Your task to perform on an android device: snooze an email in the gmail app Image 0: 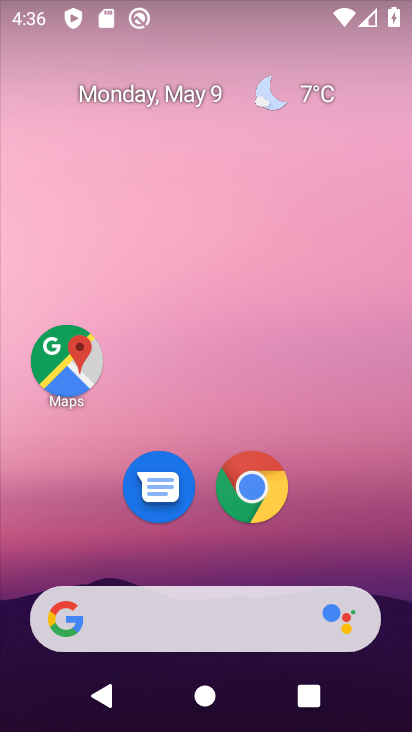
Step 0: drag from (213, 465) to (250, 53)
Your task to perform on an android device: snooze an email in the gmail app Image 1: 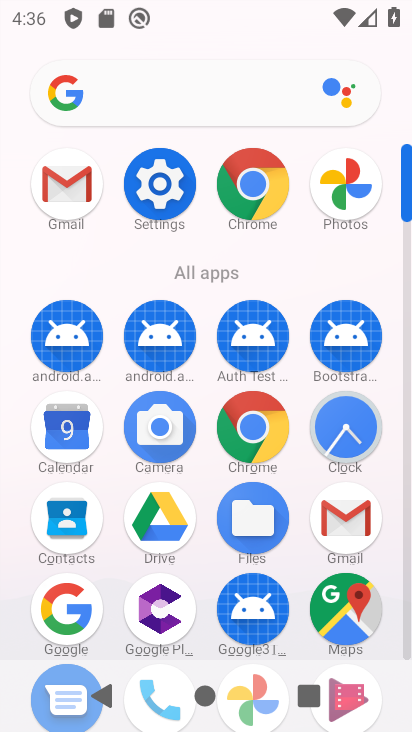
Step 1: click (346, 507)
Your task to perform on an android device: snooze an email in the gmail app Image 2: 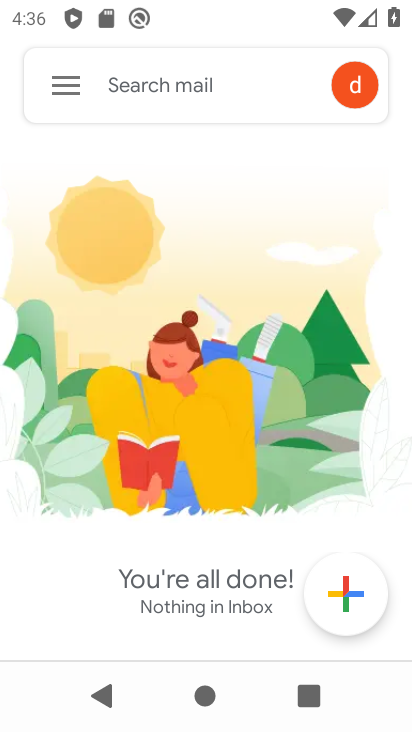
Step 2: click (66, 85)
Your task to perform on an android device: snooze an email in the gmail app Image 3: 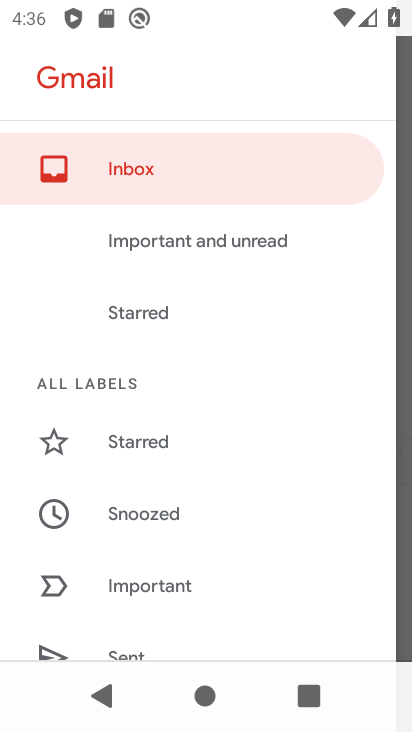
Step 3: task complete